Your task to perform on an android device: change alarm snooze length Image 0: 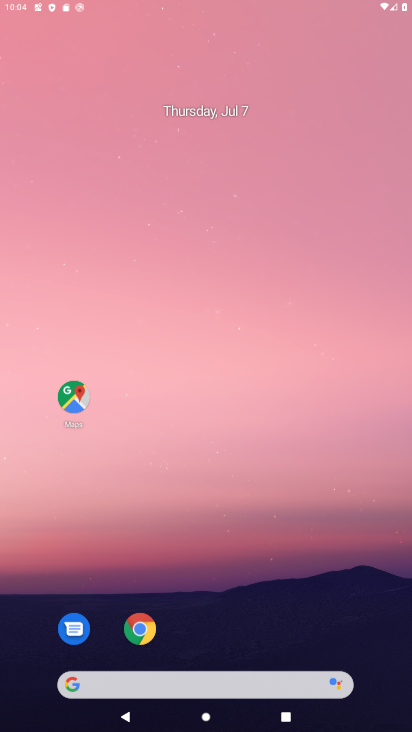
Step 0: press home button
Your task to perform on an android device: change alarm snooze length Image 1: 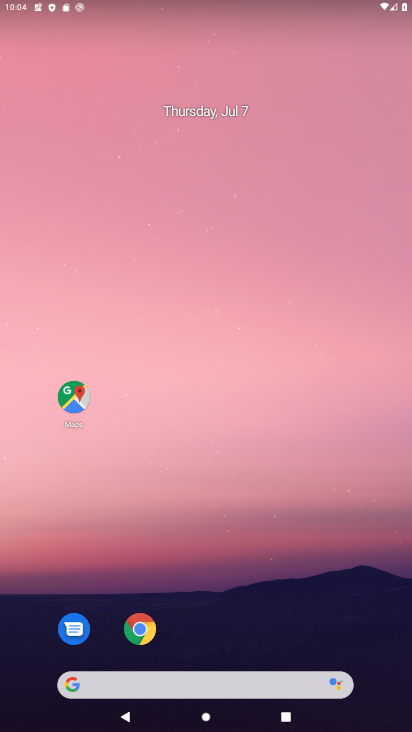
Step 1: drag from (223, 577) to (223, 0)
Your task to perform on an android device: change alarm snooze length Image 2: 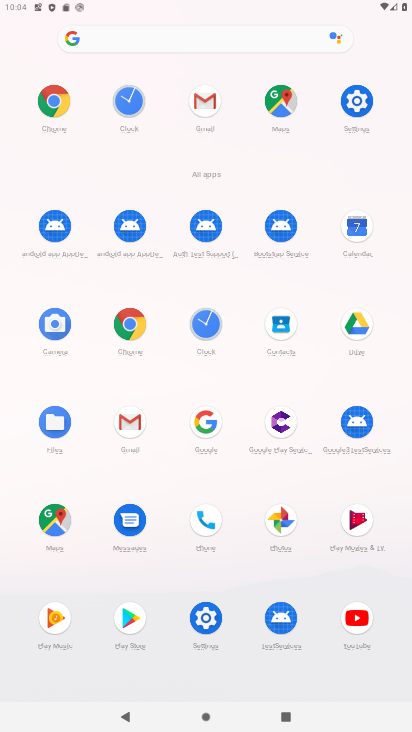
Step 2: click (129, 104)
Your task to perform on an android device: change alarm snooze length Image 3: 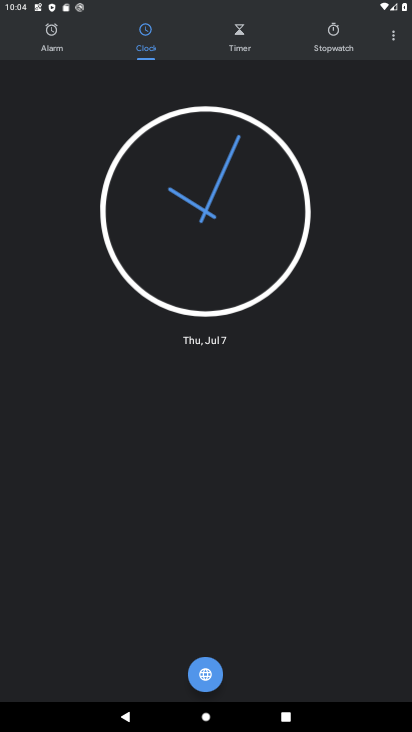
Step 3: click (397, 33)
Your task to perform on an android device: change alarm snooze length Image 4: 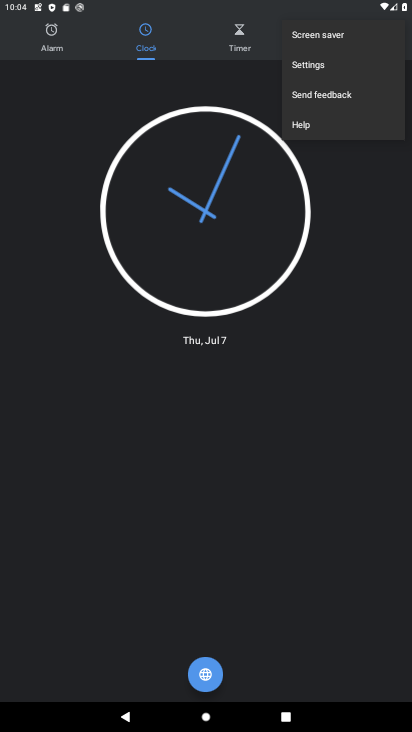
Step 4: click (314, 65)
Your task to perform on an android device: change alarm snooze length Image 5: 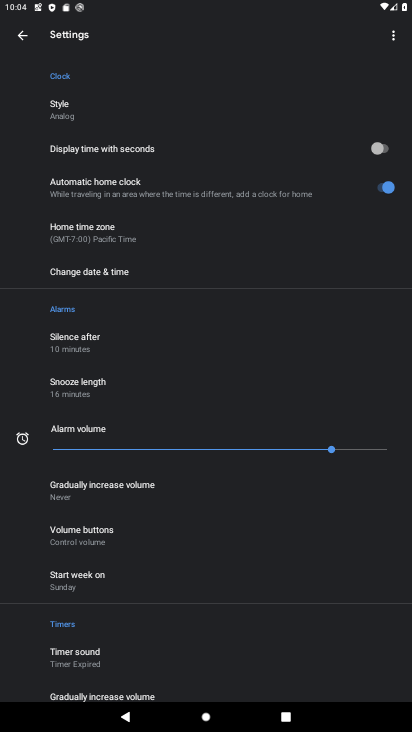
Step 5: click (80, 382)
Your task to perform on an android device: change alarm snooze length Image 6: 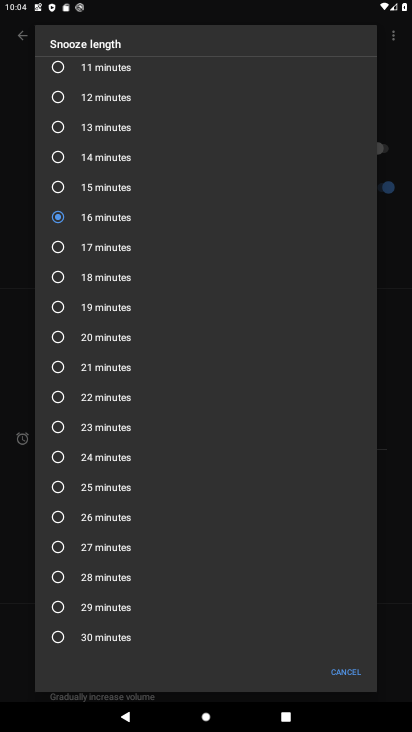
Step 6: click (59, 186)
Your task to perform on an android device: change alarm snooze length Image 7: 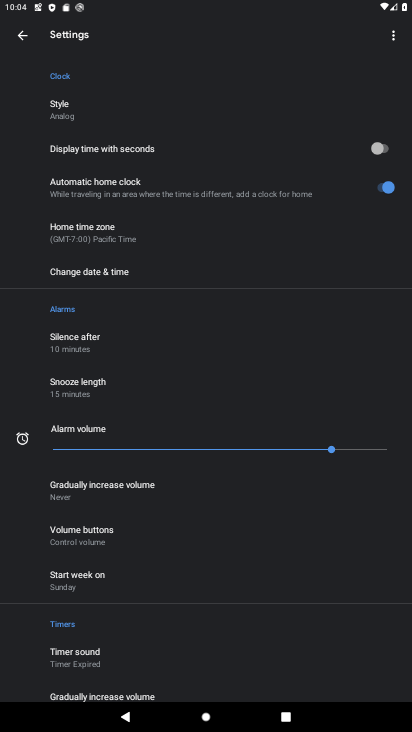
Step 7: task complete